Your task to perform on an android device: Go to settings Image 0: 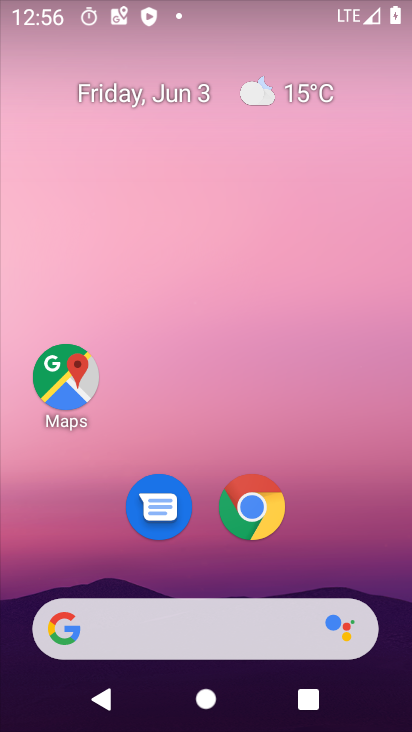
Step 0: drag from (403, 659) to (297, 60)
Your task to perform on an android device: Go to settings Image 1: 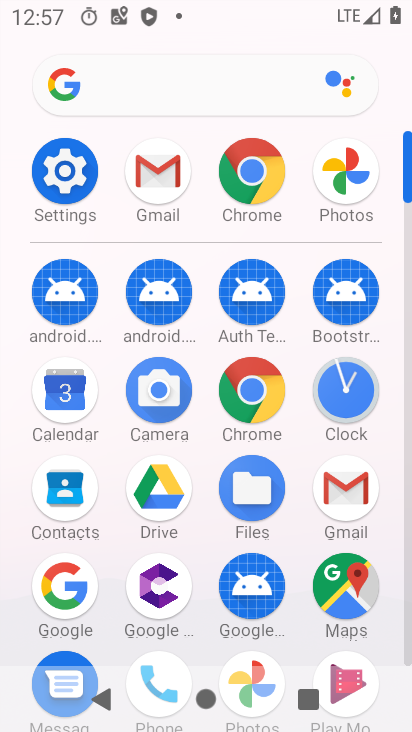
Step 1: click (79, 181)
Your task to perform on an android device: Go to settings Image 2: 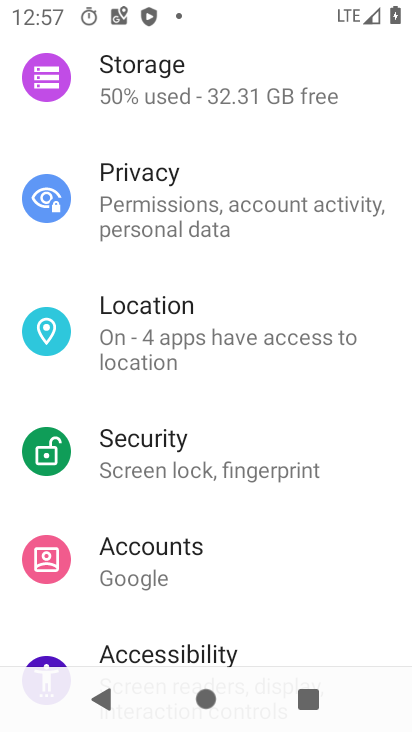
Step 2: press home button
Your task to perform on an android device: Go to settings Image 3: 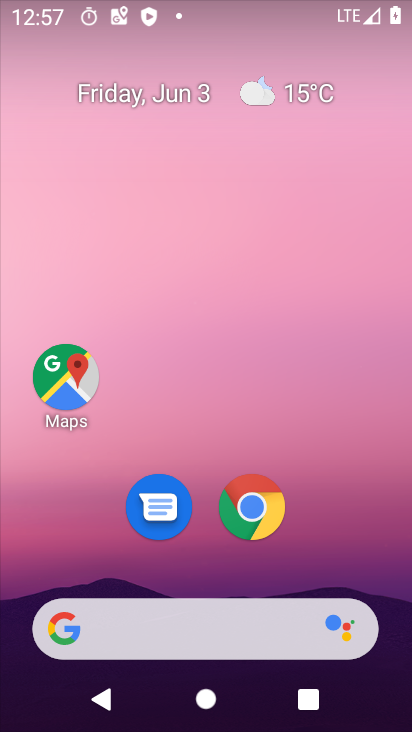
Step 3: drag from (382, 627) to (294, 36)
Your task to perform on an android device: Go to settings Image 4: 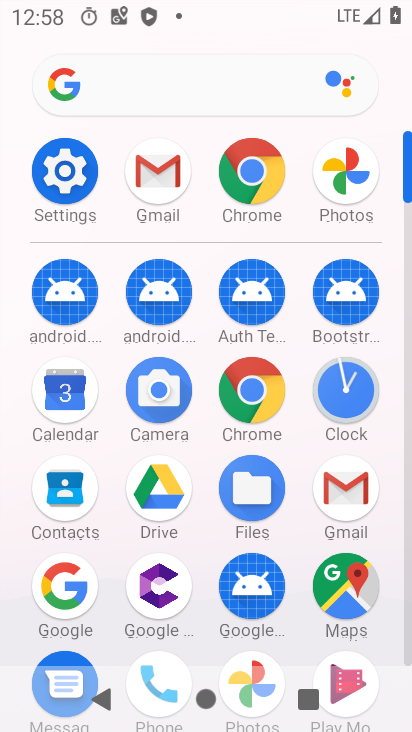
Step 4: click (68, 169)
Your task to perform on an android device: Go to settings Image 5: 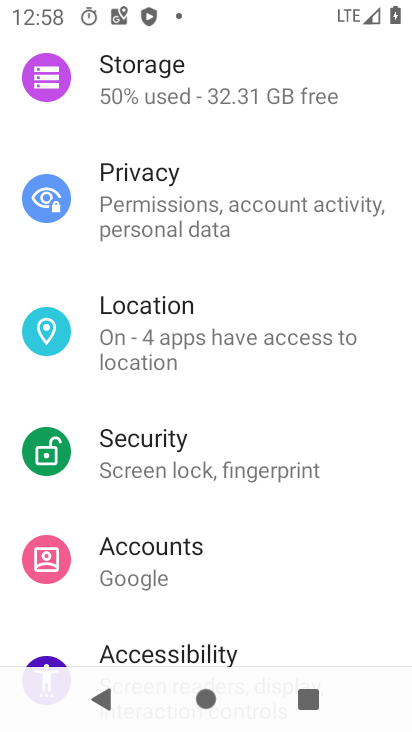
Step 5: task complete